Your task to perform on an android device: toggle data saver in the chrome app Image 0: 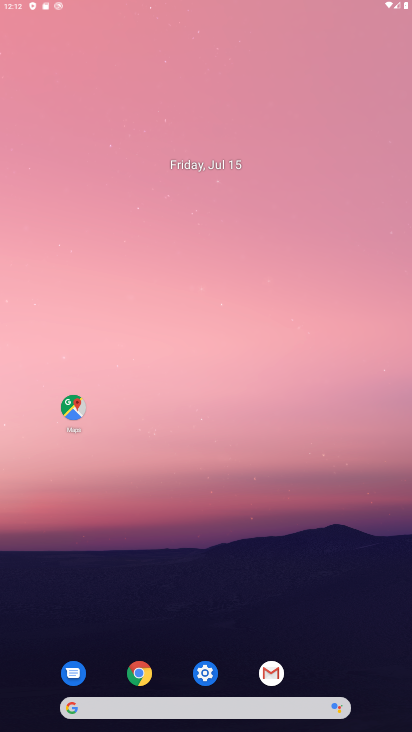
Step 0: press home button
Your task to perform on an android device: toggle data saver in the chrome app Image 1: 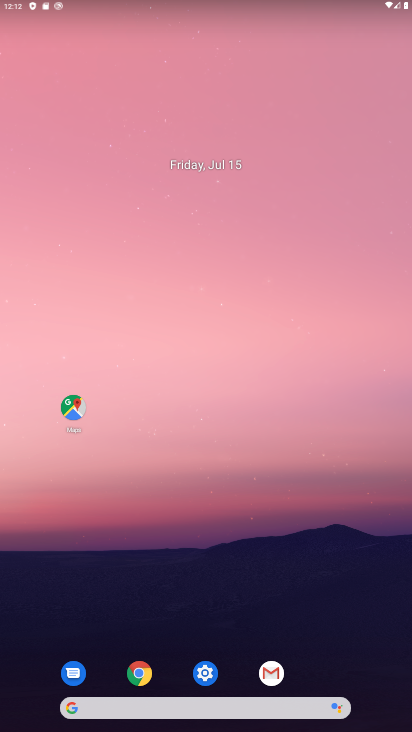
Step 1: click (203, 672)
Your task to perform on an android device: toggle data saver in the chrome app Image 2: 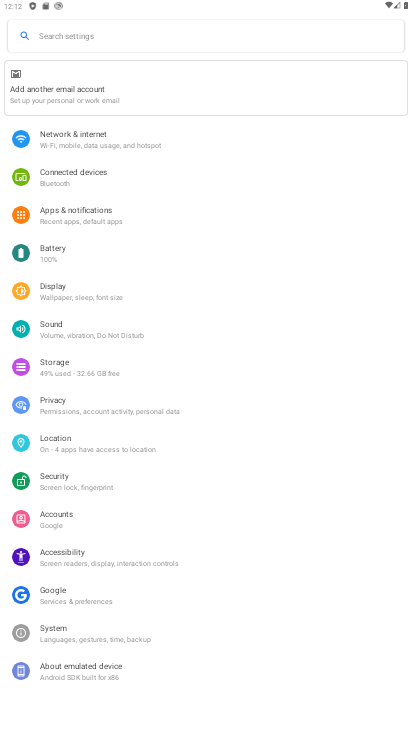
Step 2: press home button
Your task to perform on an android device: toggle data saver in the chrome app Image 3: 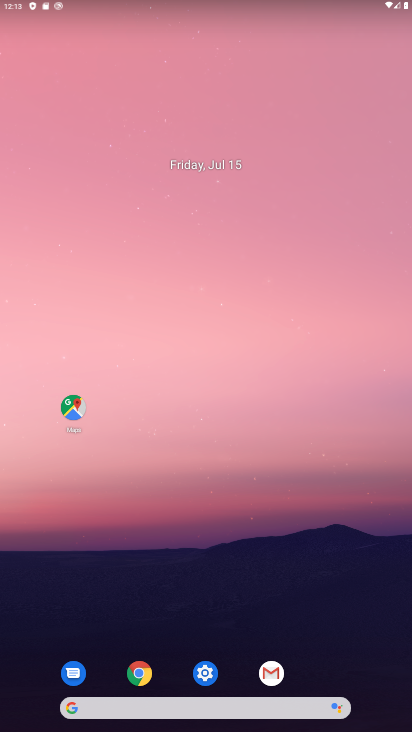
Step 3: click (145, 680)
Your task to perform on an android device: toggle data saver in the chrome app Image 4: 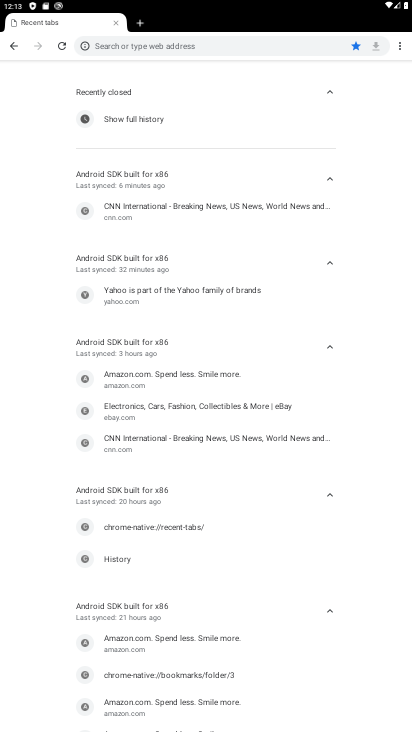
Step 4: click (402, 45)
Your task to perform on an android device: toggle data saver in the chrome app Image 5: 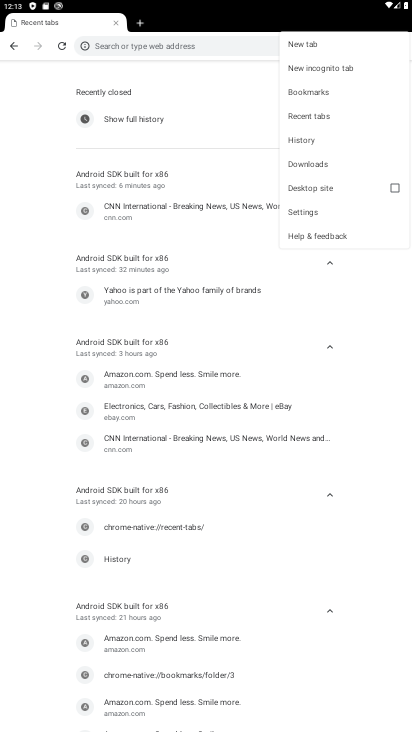
Step 5: click (309, 207)
Your task to perform on an android device: toggle data saver in the chrome app Image 6: 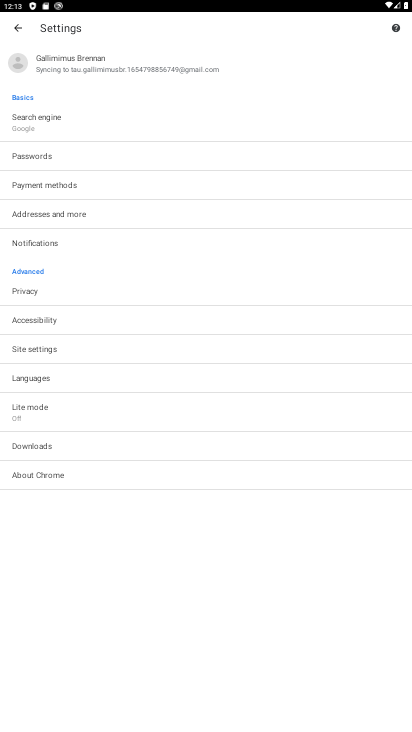
Step 6: click (53, 417)
Your task to perform on an android device: toggle data saver in the chrome app Image 7: 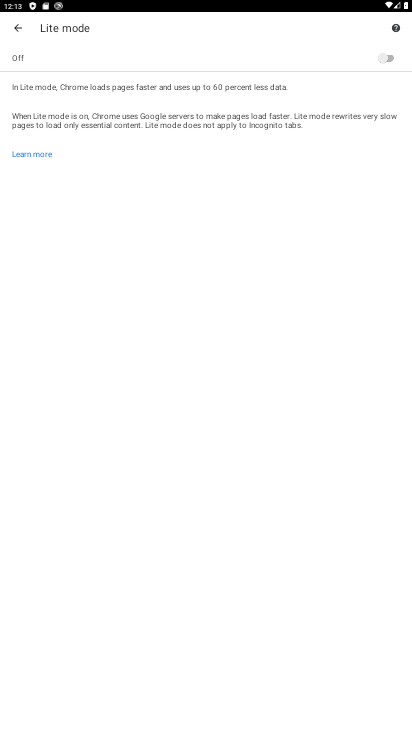
Step 7: task complete